Your task to perform on an android device: Open Youtube and go to "Your channel" Image 0: 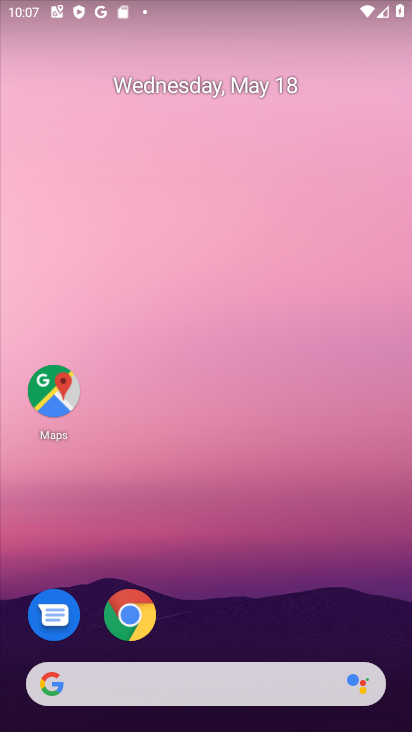
Step 0: drag from (300, 625) to (340, 3)
Your task to perform on an android device: Open Youtube and go to "Your channel" Image 1: 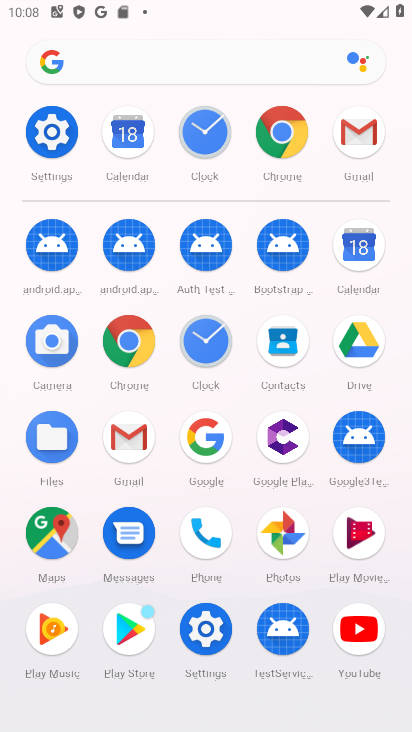
Step 1: click (375, 632)
Your task to perform on an android device: Open Youtube and go to "Your channel" Image 2: 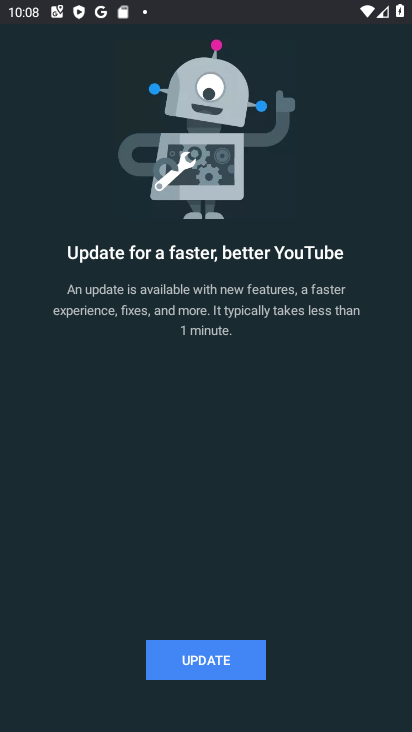
Step 2: click (215, 665)
Your task to perform on an android device: Open Youtube and go to "Your channel" Image 3: 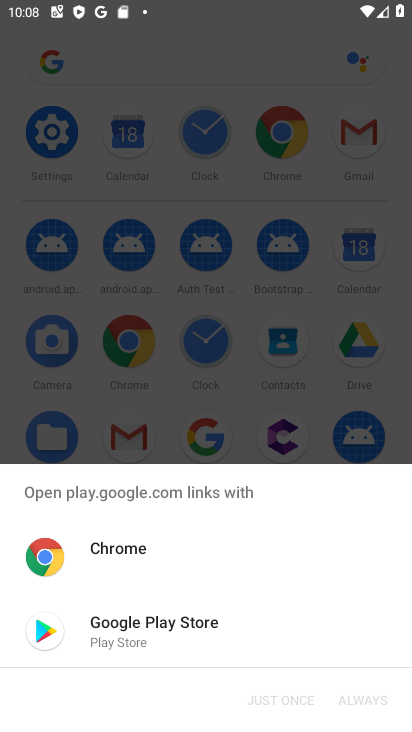
Step 3: click (159, 622)
Your task to perform on an android device: Open Youtube and go to "Your channel" Image 4: 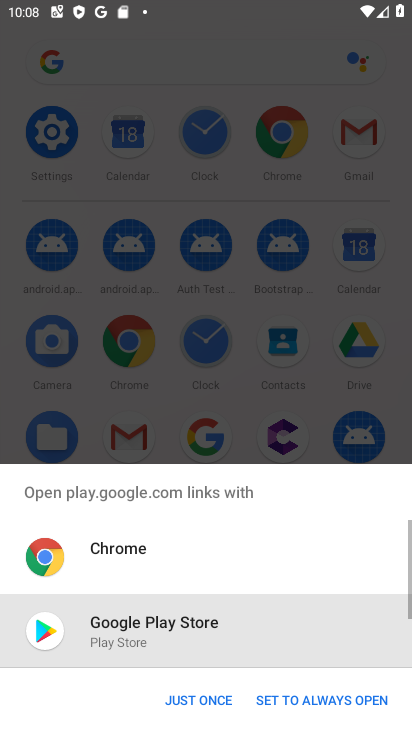
Step 4: click (263, 699)
Your task to perform on an android device: Open Youtube and go to "Your channel" Image 5: 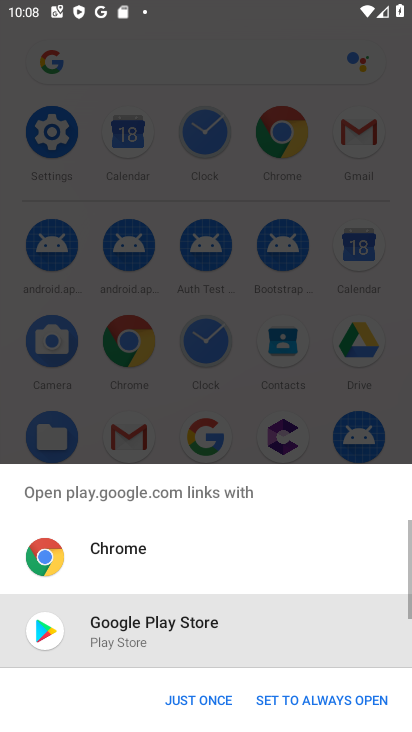
Step 5: drag from (263, 699) to (215, 685)
Your task to perform on an android device: Open Youtube and go to "Your channel" Image 6: 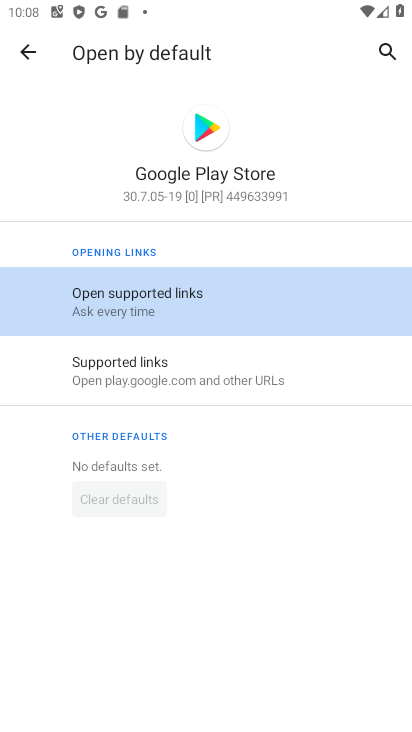
Step 6: click (25, 53)
Your task to perform on an android device: Open Youtube and go to "Your channel" Image 7: 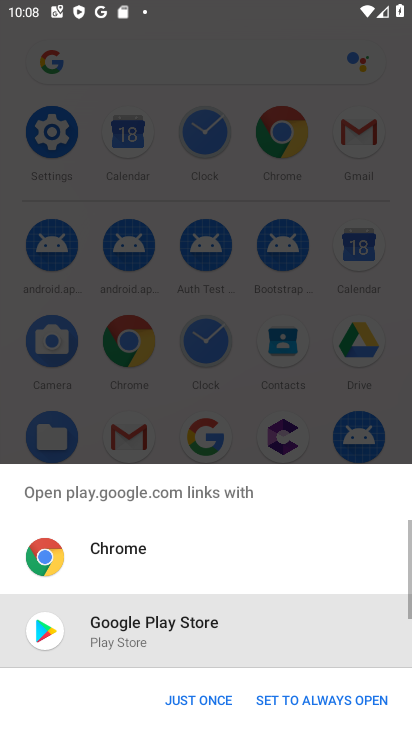
Step 7: click (179, 703)
Your task to perform on an android device: Open Youtube and go to "Your channel" Image 8: 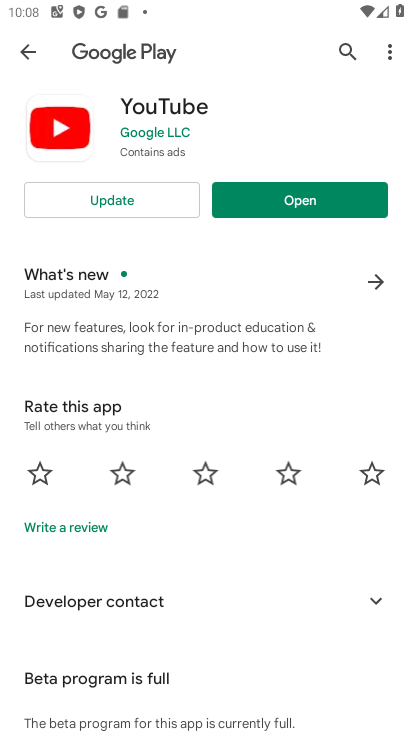
Step 8: click (172, 197)
Your task to perform on an android device: Open Youtube and go to "Your channel" Image 9: 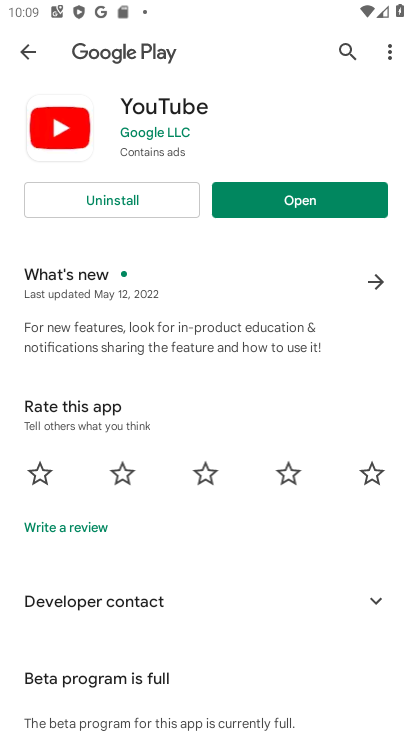
Step 9: click (286, 187)
Your task to perform on an android device: Open Youtube and go to "Your channel" Image 10: 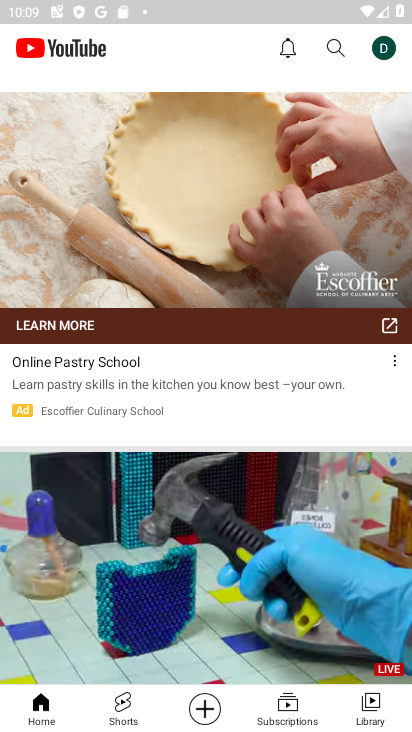
Step 10: click (387, 56)
Your task to perform on an android device: Open Youtube and go to "Your channel" Image 11: 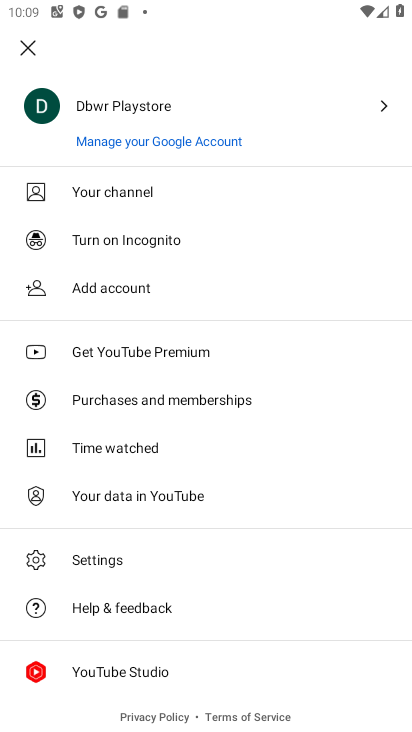
Step 11: click (183, 180)
Your task to perform on an android device: Open Youtube and go to "Your channel" Image 12: 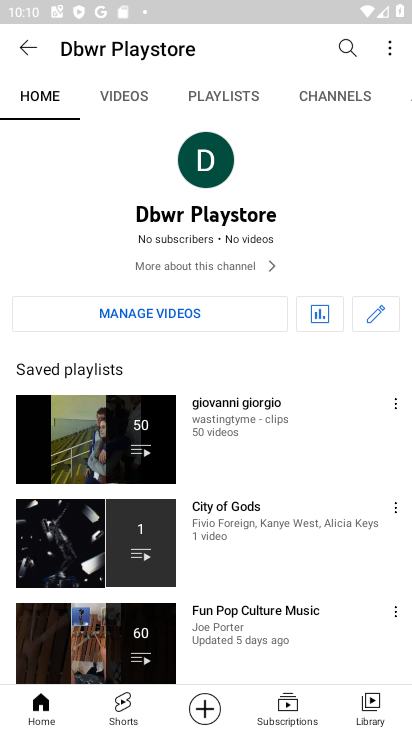
Step 12: task complete